Your task to perform on an android device: What's the weather today? Image 0: 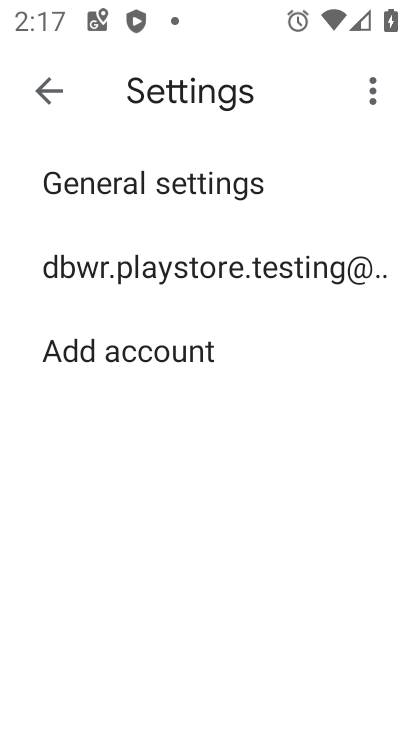
Step 0: press home button
Your task to perform on an android device: What's the weather today? Image 1: 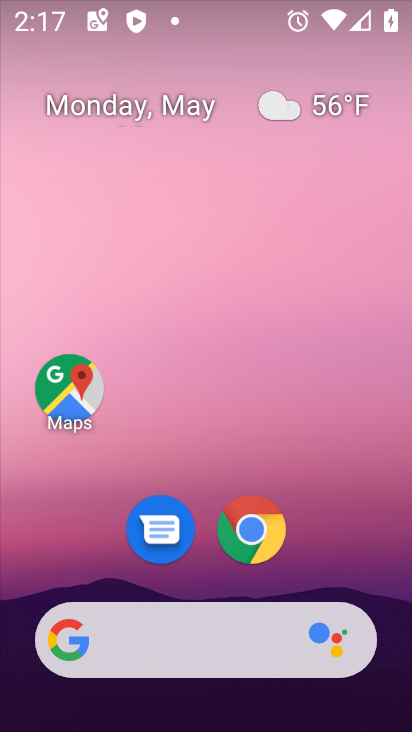
Step 1: click (194, 642)
Your task to perform on an android device: What's the weather today? Image 2: 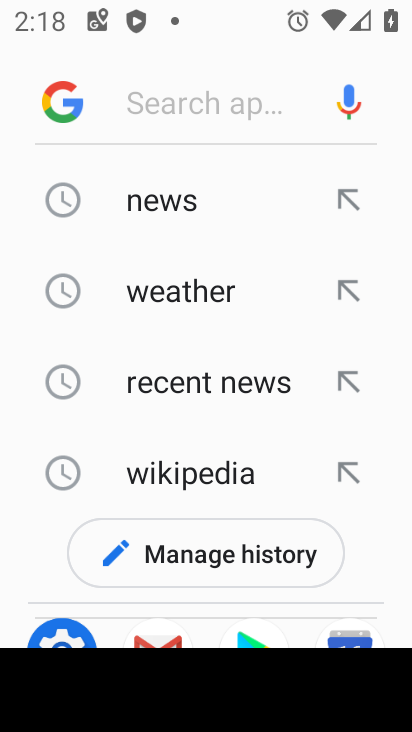
Step 2: type "what's the weather today"
Your task to perform on an android device: What's the weather today? Image 3: 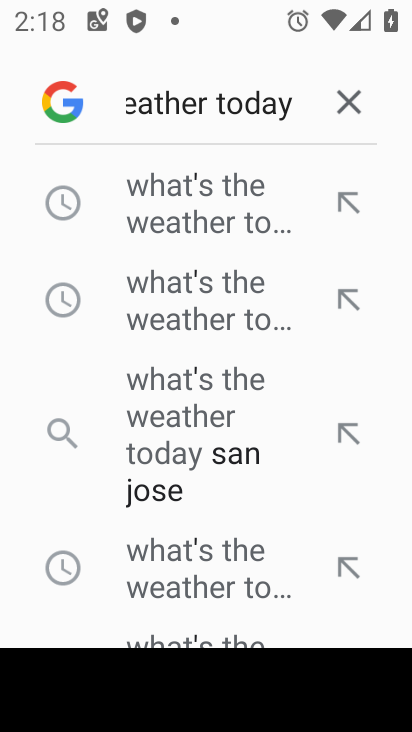
Step 3: click (179, 203)
Your task to perform on an android device: What's the weather today? Image 4: 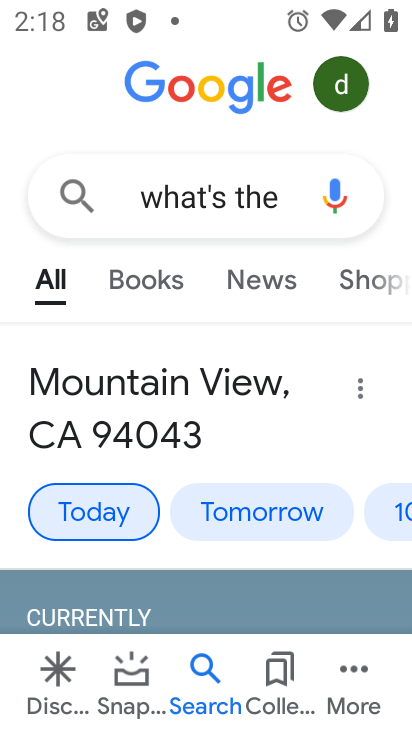
Step 4: task complete